Your task to perform on an android device: What's on the menu at Chipotle? Image 0: 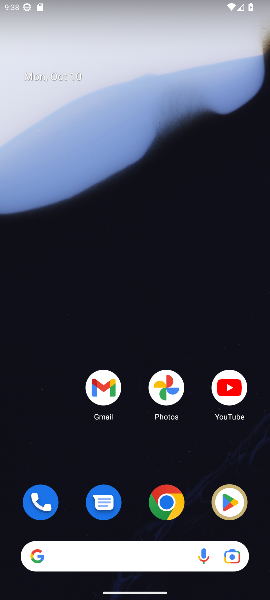
Step 0: click (161, 500)
Your task to perform on an android device: What's on the menu at Chipotle? Image 1: 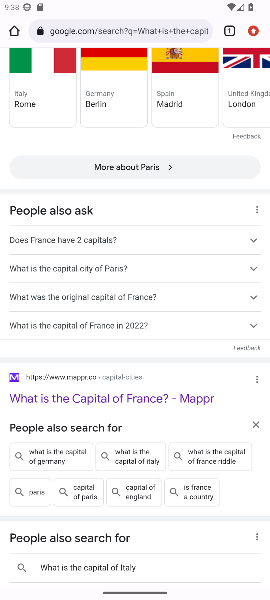
Step 1: click (162, 15)
Your task to perform on an android device: What's on the menu at Chipotle? Image 2: 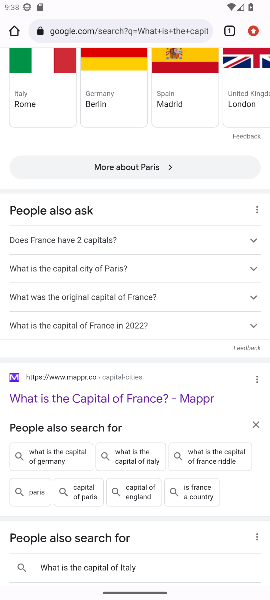
Step 2: click (160, 27)
Your task to perform on an android device: What's on the menu at Chipotle? Image 3: 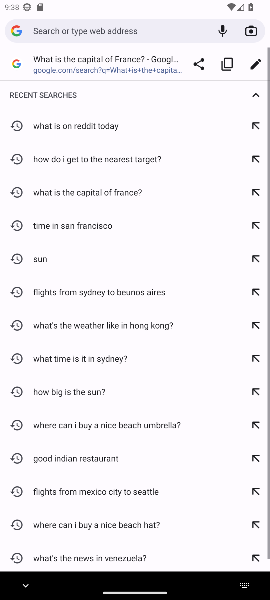
Step 3: click (160, 27)
Your task to perform on an android device: What's on the menu at Chipotle? Image 4: 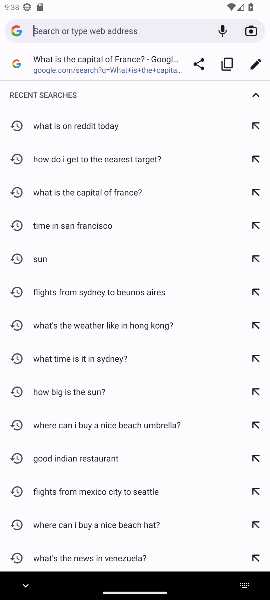
Step 4: type "What's on the menu at Chipotle?"
Your task to perform on an android device: What's on the menu at Chipotle? Image 5: 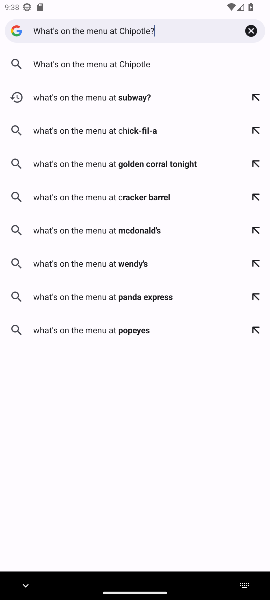
Step 5: type ""
Your task to perform on an android device: What's on the menu at Chipotle? Image 6: 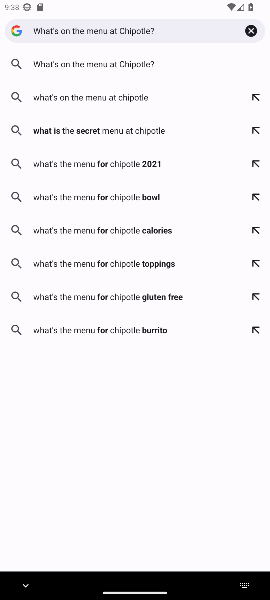
Step 6: click (124, 55)
Your task to perform on an android device: What's on the menu at Chipotle? Image 7: 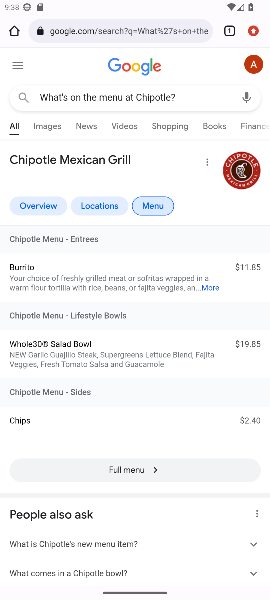
Step 7: drag from (80, 408) to (129, 162)
Your task to perform on an android device: What's on the menu at Chipotle? Image 8: 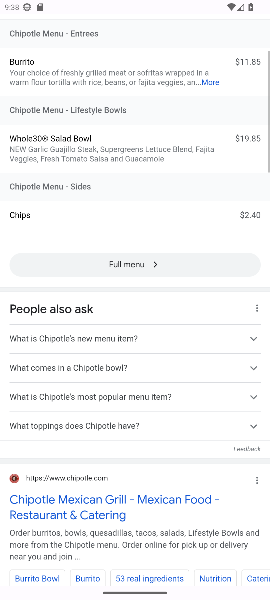
Step 8: drag from (117, 381) to (164, 199)
Your task to perform on an android device: What's on the menu at Chipotle? Image 9: 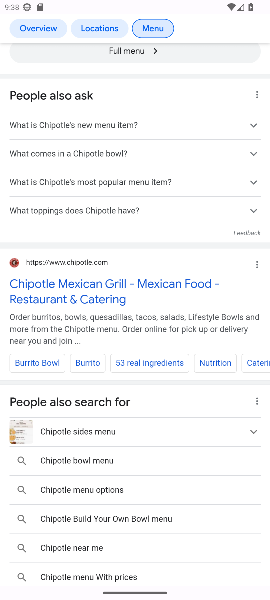
Step 9: drag from (198, 414) to (191, 188)
Your task to perform on an android device: What's on the menu at Chipotle? Image 10: 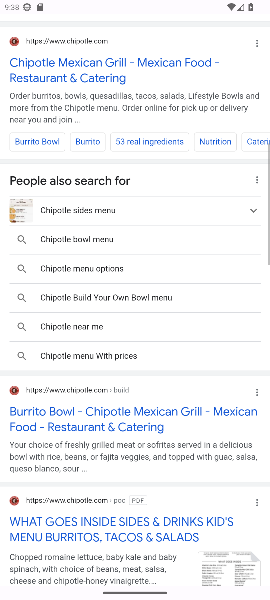
Step 10: drag from (161, 452) to (164, 186)
Your task to perform on an android device: What's on the menu at Chipotle? Image 11: 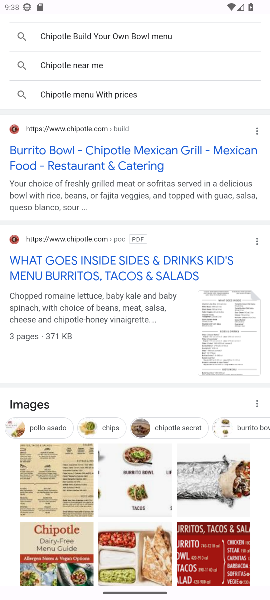
Step 11: drag from (164, 186) to (175, 480)
Your task to perform on an android device: What's on the menu at Chipotle? Image 12: 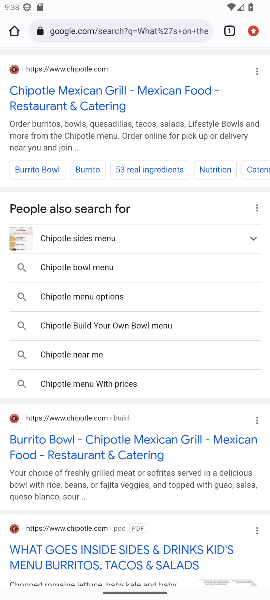
Step 12: drag from (181, 294) to (168, 531)
Your task to perform on an android device: What's on the menu at Chipotle? Image 13: 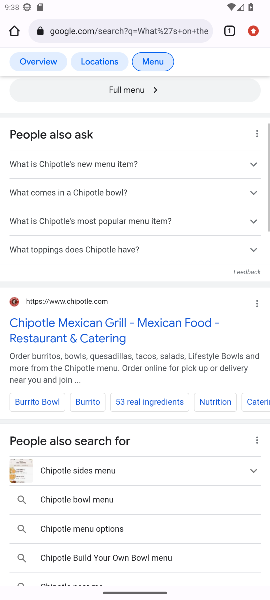
Step 13: drag from (159, 318) to (143, 542)
Your task to perform on an android device: What's on the menu at Chipotle? Image 14: 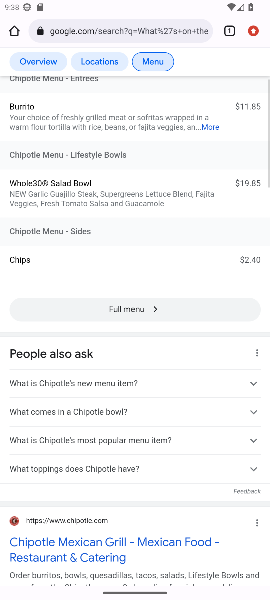
Step 14: drag from (169, 326) to (155, 559)
Your task to perform on an android device: What's on the menu at Chipotle? Image 15: 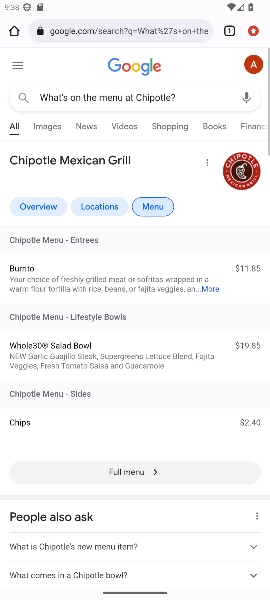
Step 15: drag from (176, 316) to (169, 436)
Your task to perform on an android device: What's on the menu at Chipotle? Image 16: 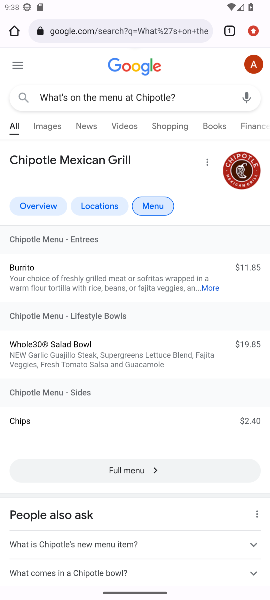
Step 16: click (136, 470)
Your task to perform on an android device: What's on the menu at Chipotle? Image 17: 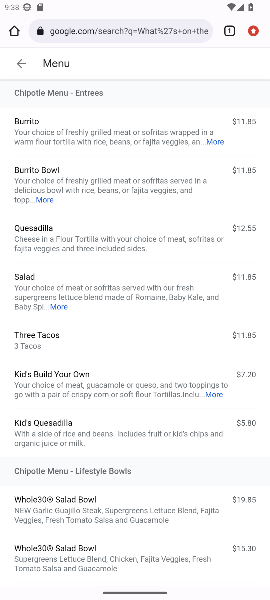
Step 17: drag from (131, 491) to (124, 197)
Your task to perform on an android device: What's on the menu at Chipotle? Image 18: 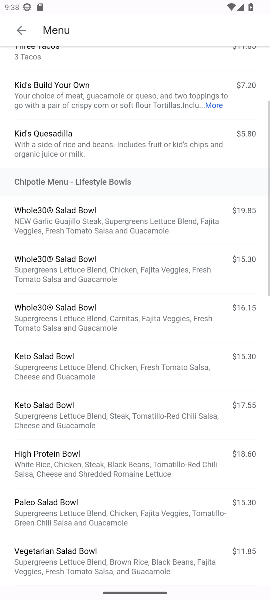
Step 18: drag from (84, 441) to (101, 176)
Your task to perform on an android device: What's on the menu at Chipotle? Image 19: 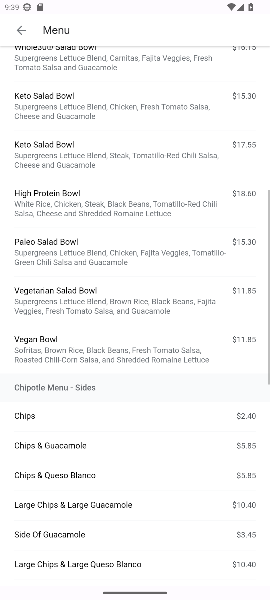
Step 19: click (108, 196)
Your task to perform on an android device: What's on the menu at Chipotle? Image 20: 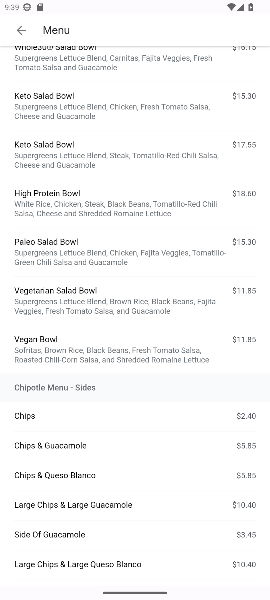
Step 20: drag from (126, 448) to (148, 218)
Your task to perform on an android device: What's on the menu at Chipotle? Image 21: 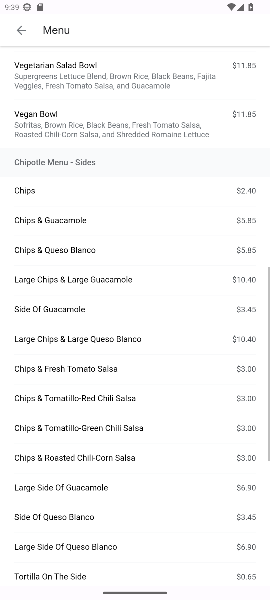
Step 21: click (153, 258)
Your task to perform on an android device: What's on the menu at Chipotle? Image 22: 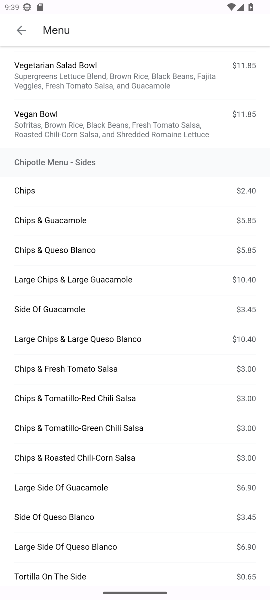
Step 22: drag from (166, 458) to (174, 185)
Your task to perform on an android device: What's on the menu at Chipotle? Image 23: 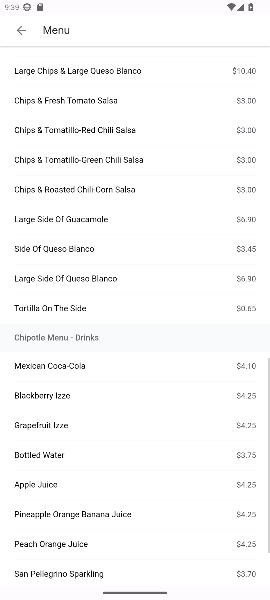
Step 23: drag from (170, 344) to (169, 180)
Your task to perform on an android device: What's on the menu at Chipotle? Image 24: 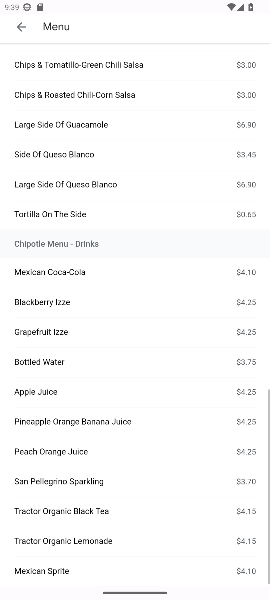
Step 24: drag from (135, 438) to (174, 226)
Your task to perform on an android device: What's on the menu at Chipotle? Image 25: 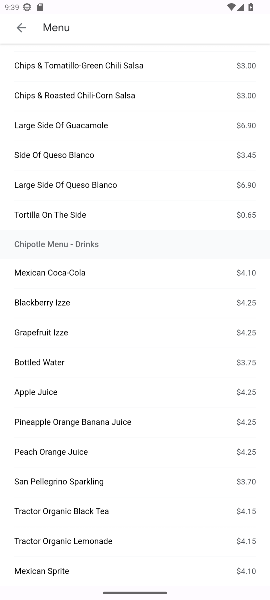
Step 25: drag from (156, 427) to (183, 239)
Your task to perform on an android device: What's on the menu at Chipotle? Image 26: 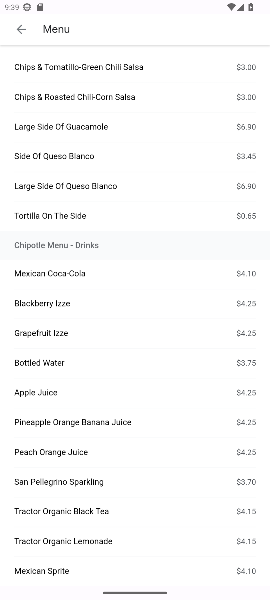
Step 26: drag from (135, 435) to (190, 151)
Your task to perform on an android device: What's on the menu at Chipotle? Image 27: 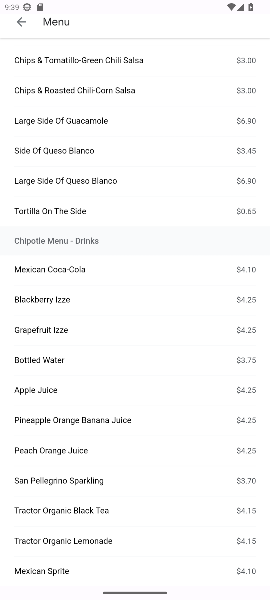
Step 27: drag from (190, 170) to (152, 480)
Your task to perform on an android device: What's on the menu at Chipotle? Image 28: 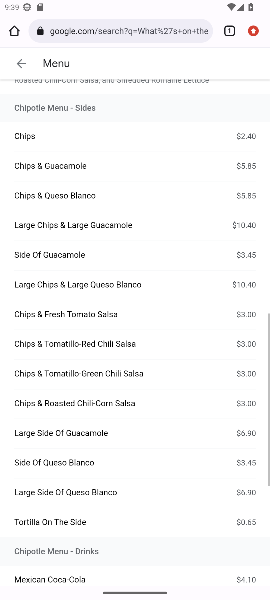
Step 28: drag from (173, 201) to (182, 430)
Your task to perform on an android device: What's on the menu at Chipotle? Image 29: 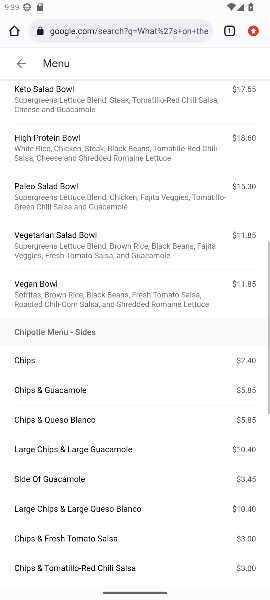
Step 29: drag from (165, 195) to (173, 369)
Your task to perform on an android device: What's on the menu at Chipotle? Image 30: 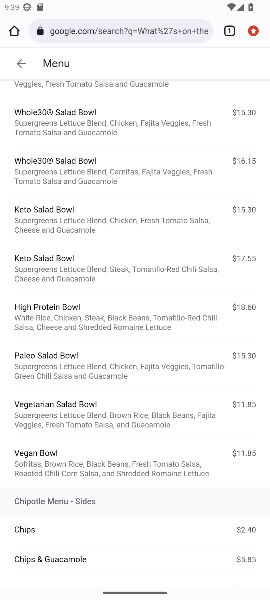
Step 30: drag from (148, 206) to (157, 385)
Your task to perform on an android device: What's on the menu at Chipotle? Image 31: 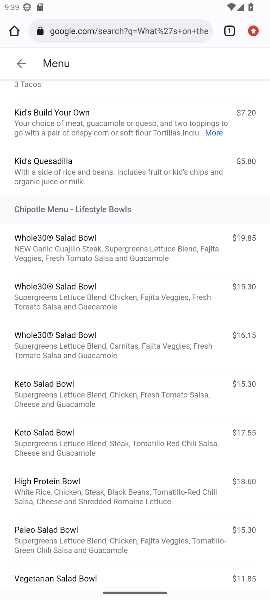
Step 31: drag from (193, 329) to (194, 559)
Your task to perform on an android device: What's on the menu at Chipotle? Image 32: 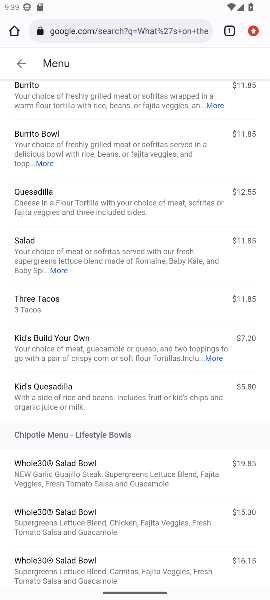
Step 32: press back button
Your task to perform on an android device: What's on the menu at Chipotle? Image 33: 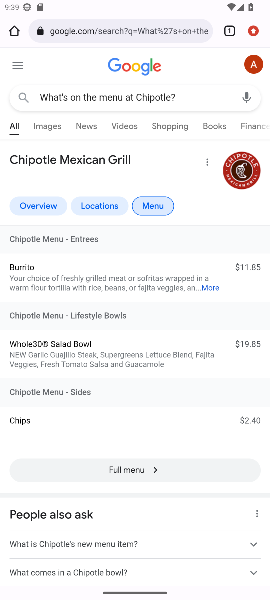
Step 33: drag from (148, 509) to (164, 131)
Your task to perform on an android device: What's on the menu at Chipotle? Image 34: 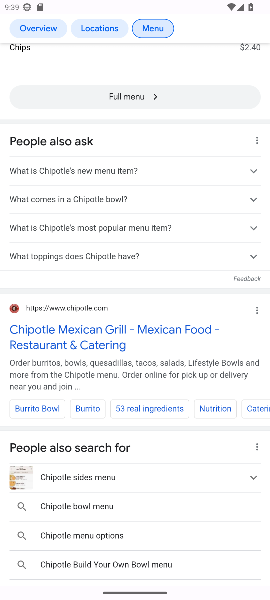
Step 34: click (119, 323)
Your task to perform on an android device: What's on the menu at Chipotle? Image 35: 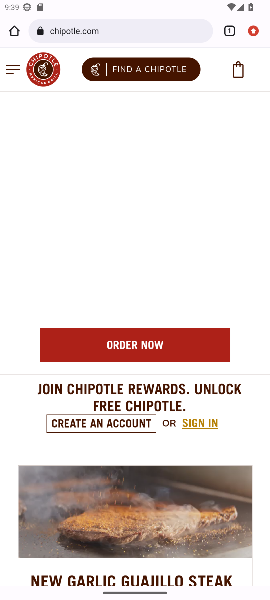
Step 35: drag from (132, 498) to (150, 108)
Your task to perform on an android device: What's on the menu at Chipotle? Image 36: 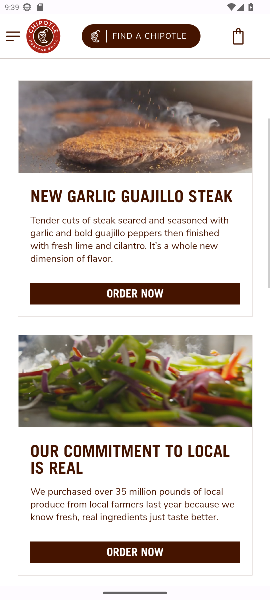
Step 36: drag from (138, 529) to (191, 91)
Your task to perform on an android device: What's on the menu at Chipotle? Image 37: 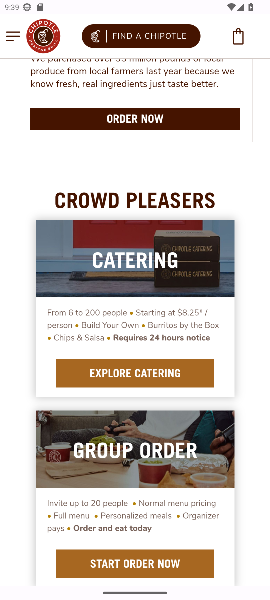
Step 37: drag from (206, 366) to (228, 78)
Your task to perform on an android device: What's on the menu at Chipotle? Image 38: 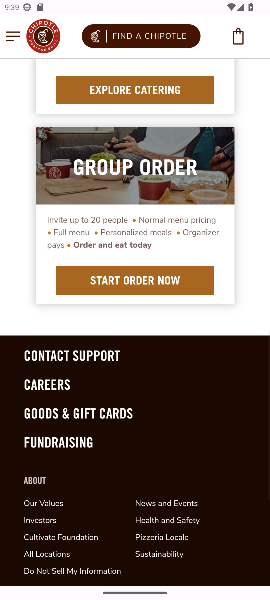
Step 38: drag from (209, 483) to (198, 121)
Your task to perform on an android device: What's on the menu at Chipotle? Image 39: 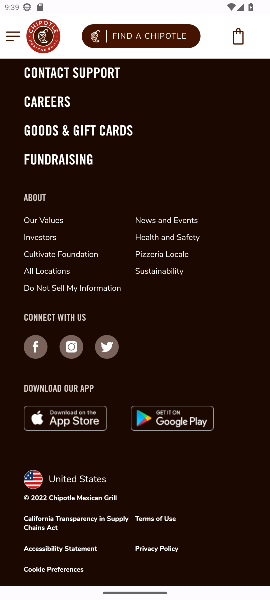
Step 39: press back button
Your task to perform on an android device: What's on the menu at Chipotle? Image 40: 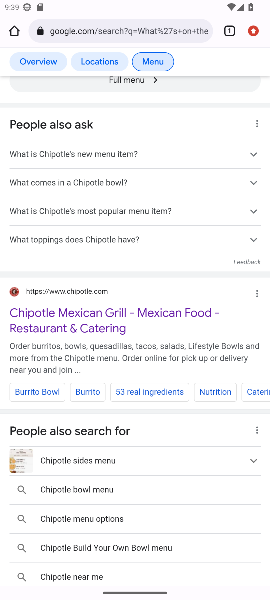
Step 40: drag from (175, 474) to (172, 108)
Your task to perform on an android device: What's on the menu at Chipotle? Image 41: 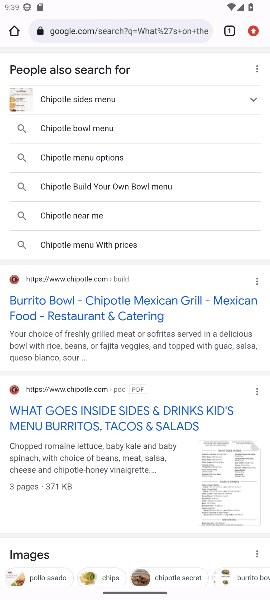
Step 41: click (145, 306)
Your task to perform on an android device: What's on the menu at Chipotle? Image 42: 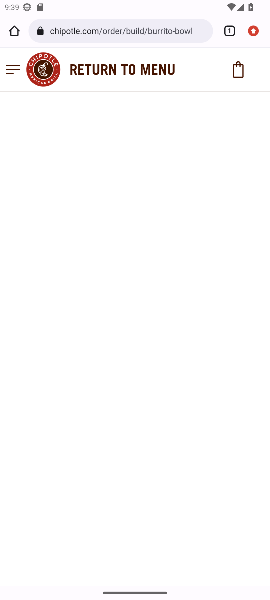
Step 42: drag from (141, 490) to (171, 168)
Your task to perform on an android device: What's on the menu at Chipotle? Image 43: 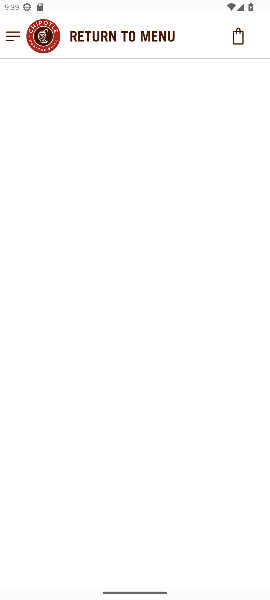
Step 43: drag from (146, 461) to (173, 187)
Your task to perform on an android device: What's on the menu at Chipotle? Image 44: 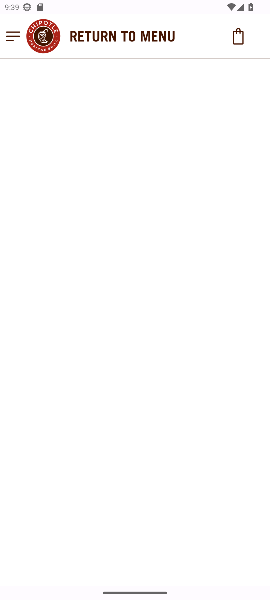
Step 44: drag from (128, 464) to (136, 248)
Your task to perform on an android device: What's on the menu at Chipotle? Image 45: 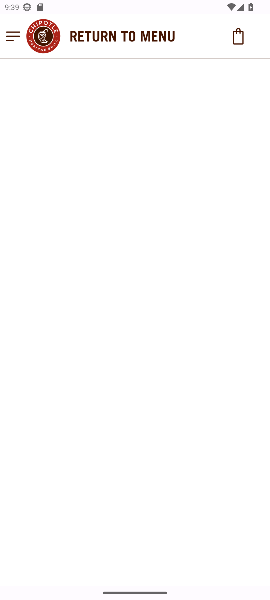
Step 45: drag from (85, 486) to (138, 309)
Your task to perform on an android device: What's on the menu at Chipotle? Image 46: 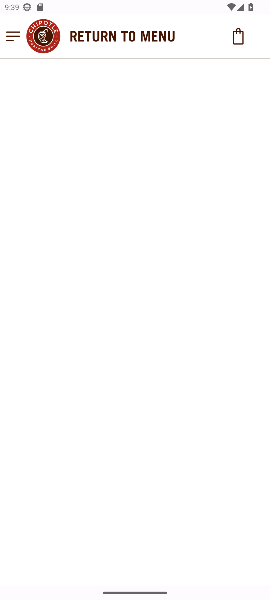
Step 46: drag from (86, 493) to (123, 228)
Your task to perform on an android device: What's on the menu at Chipotle? Image 47: 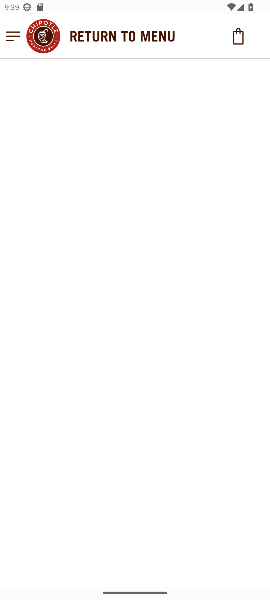
Step 47: drag from (112, 472) to (122, 269)
Your task to perform on an android device: What's on the menu at Chipotle? Image 48: 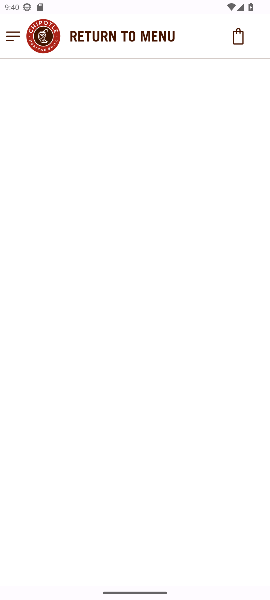
Step 48: drag from (123, 418) to (149, 200)
Your task to perform on an android device: What's on the menu at Chipotle? Image 49: 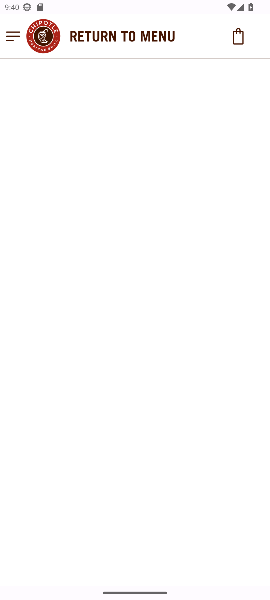
Step 49: click (129, 283)
Your task to perform on an android device: What's on the menu at Chipotle? Image 50: 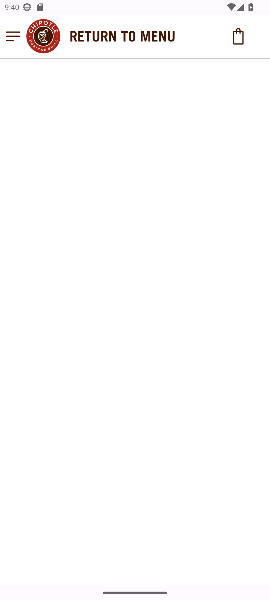
Step 50: press back button
Your task to perform on an android device: What's on the menu at Chipotle? Image 51: 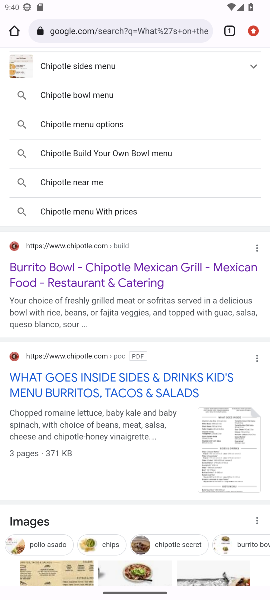
Step 51: drag from (107, 467) to (157, 9)
Your task to perform on an android device: What's on the menu at Chipotle? Image 52: 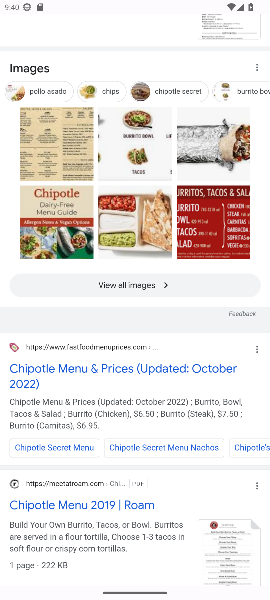
Step 52: click (103, 372)
Your task to perform on an android device: What's on the menu at Chipotle? Image 53: 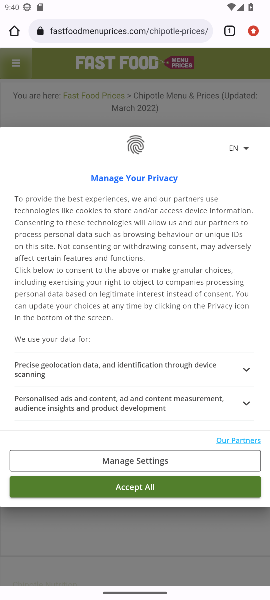
Step 53: drag from (126, 480) to (140, 180)
Your task to perform on an android device: What's on the menu at Chipotle? Image 54: 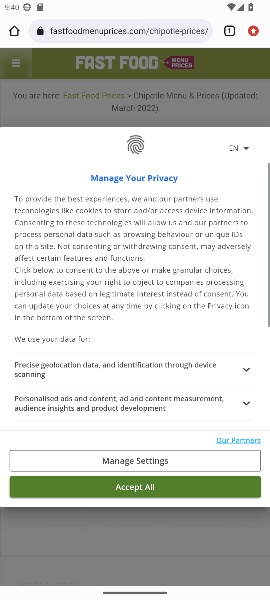
Step 54: click (123, 485)
Your task to perform on an android device: What's on the menu at Chipotle? Image 55: 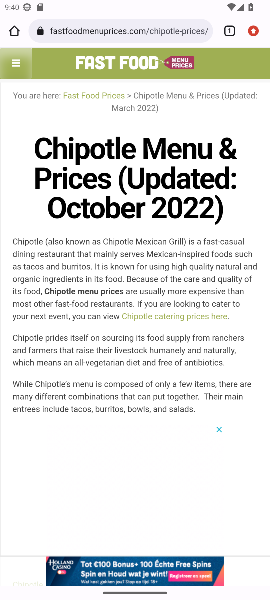
Step 55: drag from (128, 506) to (160, 185)
Your task to perform on an android device: What's on the menu at Chipotle? Image 56: 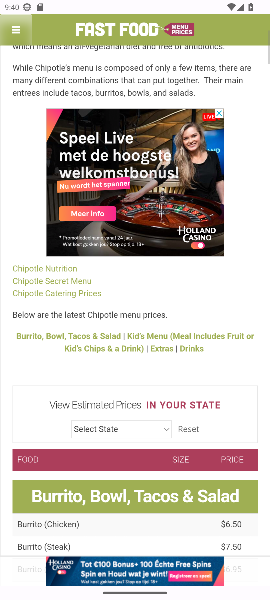
Step 56: drag from (137, 333) to (143, 227)
Your task to perform on an android device: What's on the menu at Chipotle? Image 57: 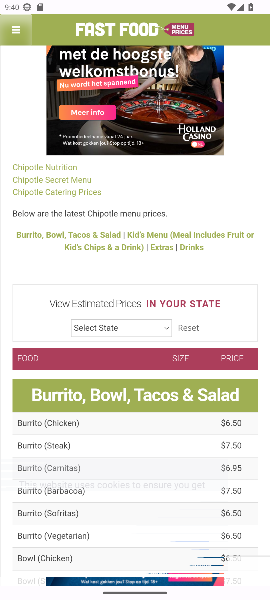
Step 57: drag from (142, 437) to (184, 165)
Your task to perform on an android device: What's on the menu at Chipotle? Image 58: 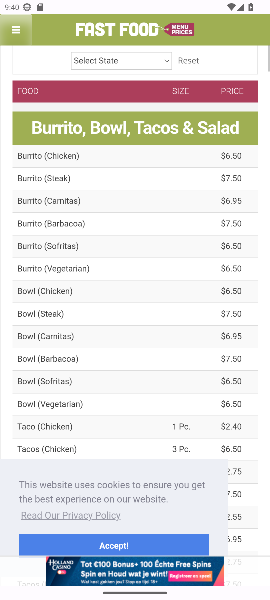
Step 58: drag from (173, 410) to (171, 209)
Your task to perform on an android device: What's on the menu at Chipotle? Image 59: 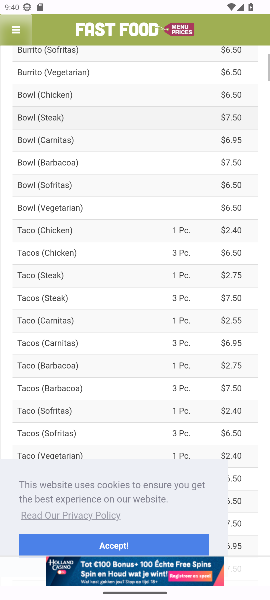
Step 59: drag from (136, 436) to (132, 218)
Your task to perform on an android device: What's on the menu at Chipotle? Image 60: 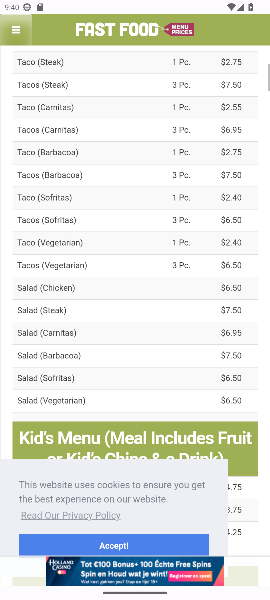
Step 60: drag from (110, 428) to (121, 242)
Your task to perform on an android device: What's on the menu at Chipotle? Image 61: 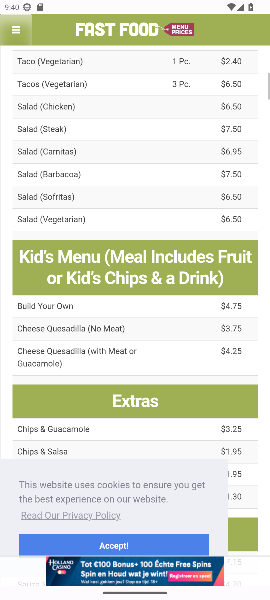
Step 61: drag from (109, 446) to (106, 279)
Your task to perform on an android device: What's on the menu at Chipotle? Image 62: 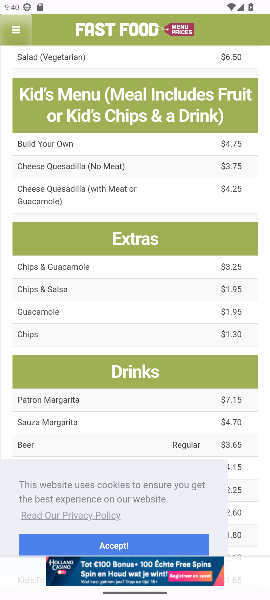
Step 62: drag from (114, 423) to (121, 218)
Your task to perform on an android device: What's on the menu at Chipotle? Image 63: 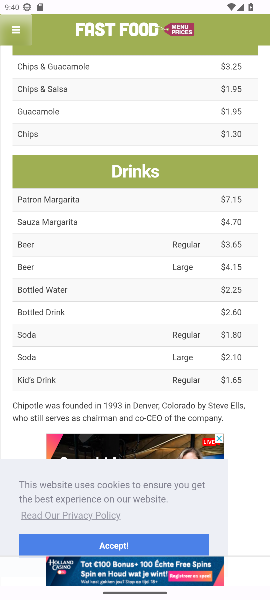
Step 63: drag from (97, 419) to (118, 194)
Your task to perform on an android device: What's on the menu at Chipotle? Image 64: 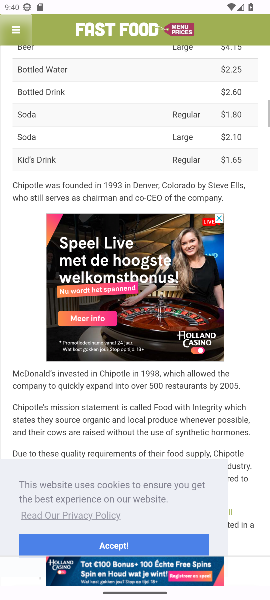
Step 64: drag from (121, 196) to (124, 167)
Your task to perform on an android device: What's on the menu at Chipotle? Image 65: 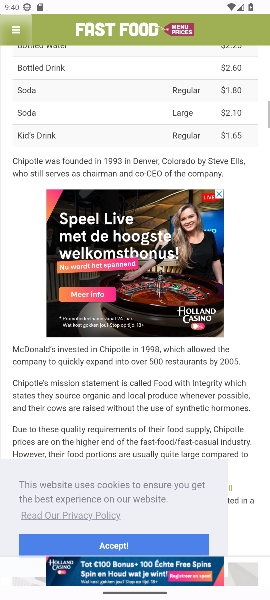
Step 65: drag from (106, 355) to (104, 180)
Your task to perform on an android device: What's on the menu at Chipotle? Image 66: 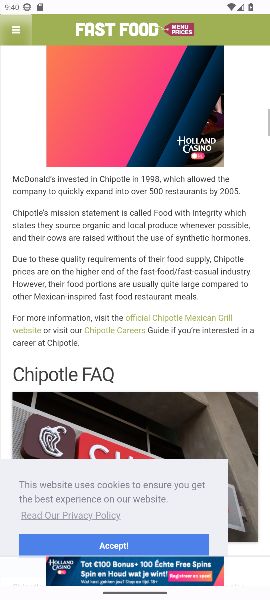
Step 66: drag from (88, 312) to (87, 171)
Your task to perform on an android device: What's on the menu at Chipotle? Image 67: 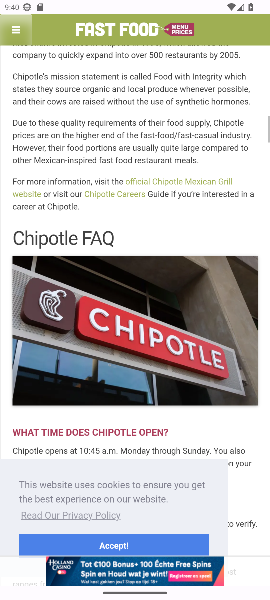
Step 67: drag from (71, 347) to (88, 172)
Your task to perform on an android device: What's on the menu at Chipotle? Image 68: 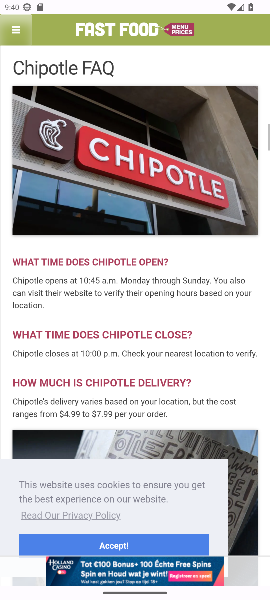
Step 68: drag from (77, 363) to (73, 184)
Your task to perform on an android device: What's on the menu at Chipotle? Image 69: 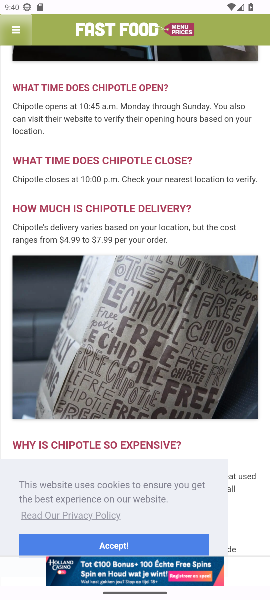
Step 69: click (77, 199)
Your task to perform on an android device: What's on the menu at Chipotle? Image 70: 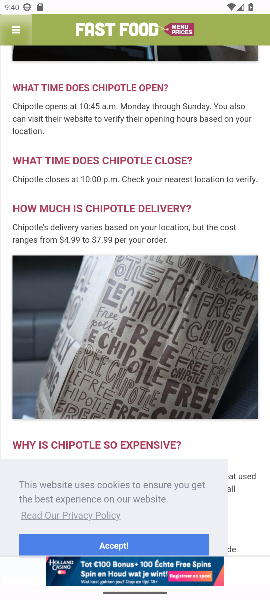
Step 70: drag from (86, 327) to (103, 202)
Your task to perform on an android device: What's on the menu at Chipotle? Image 71: 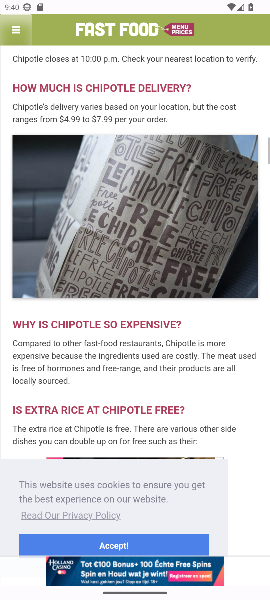
Step 71: drag from (84, 356) to (109, 210)
Your task to perform on an android device: What's on the menu at Chipotle? Image 72: 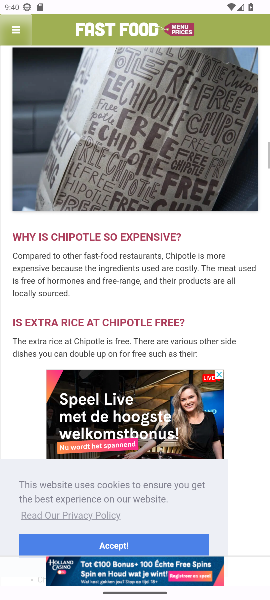
Step 72: click (122, 174)
Your task to perform on an android device: What's on the menu at Chipotle? Image 73: 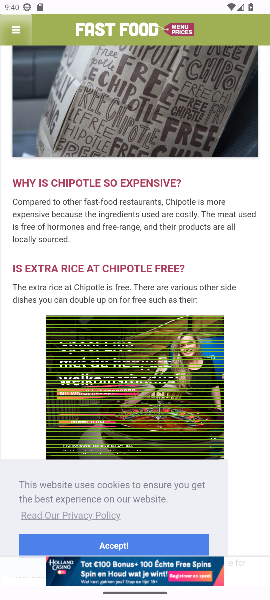
Step 73: drag from (120, 257) to (131, 179)
Your task to perform on an android device: What's on the menu at Chipotle? Image 74: 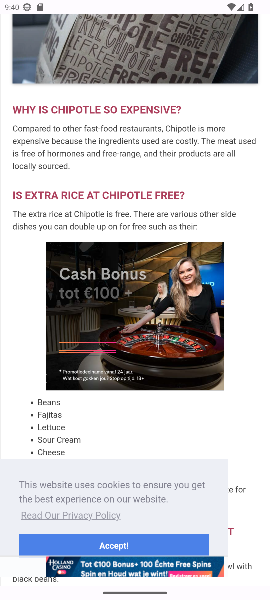
Step 74: drag from (107, 354) to (139, 223)
Your task to perform on an android device: What's on the menu at Chipotle? Image 75: 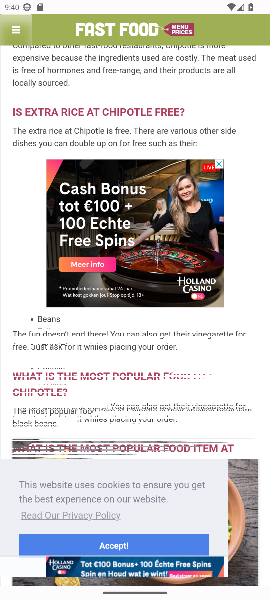
Step 75: drag from (146, 359) to (143, 250)
Your task to perform on an android device: What's on the menu at Chipotle? Image 76: 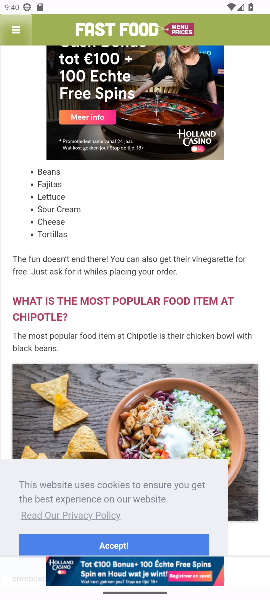
Step 76: drag from (155, 348) to (179, 188)
Your task to perform on an android device: What's on the menu at Chipotle? Image 77: 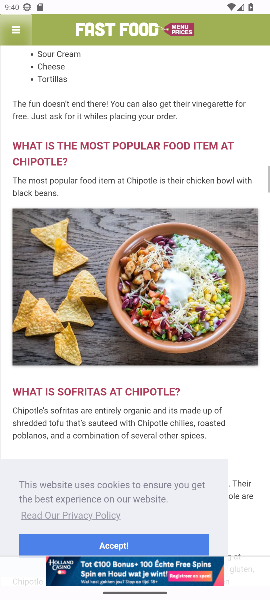
Step 77: drag from (184, 347) to (191, 181)
Your task to perform on an android device: What's on the menu at Chipotle? Image 78: 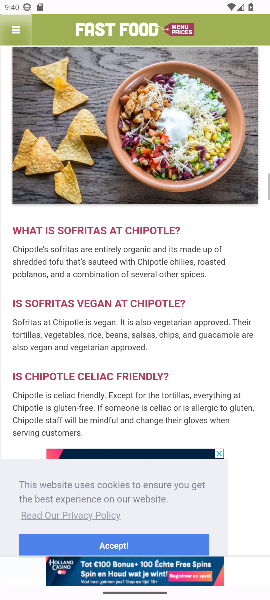
Step 78: drag from (162, 306) to (162, 204)
Your task to perform on an android device: What's on the menu at Chipotle? Image 79: 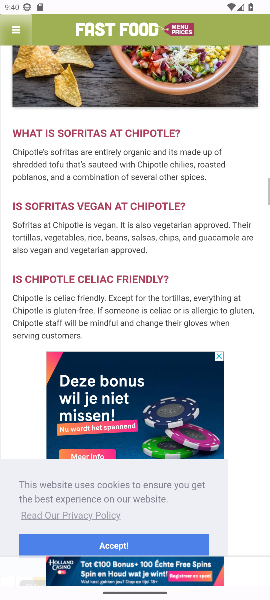
Step 79: drag from (148, 367) to (151, 215)
Your task to perform on an android device: What's on the menu at Chipotle? Image 80: 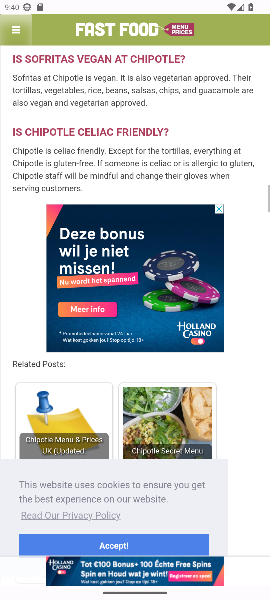
Step 80: drag from (155, 298) to (167, 200)
Your task to perform on an android device: What's on the menu at Chipotle? Image 81: 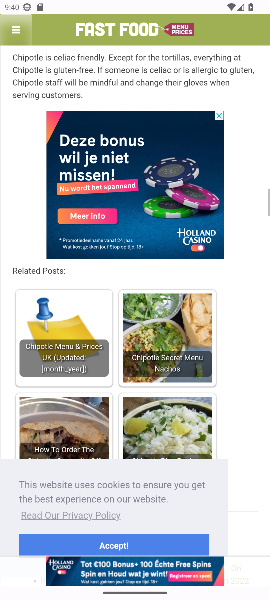
Step 81: drag from (168, 366) to (176, 243)
Your task to perform on an android device: What's on the menu at Chipotle? Image 82: 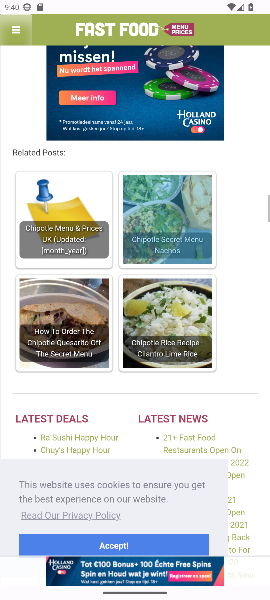
Step 82: drag from (192, 386) to (189, 225)
Your task to perform on an android device: What's on the menu at Chipotle? Image 83: 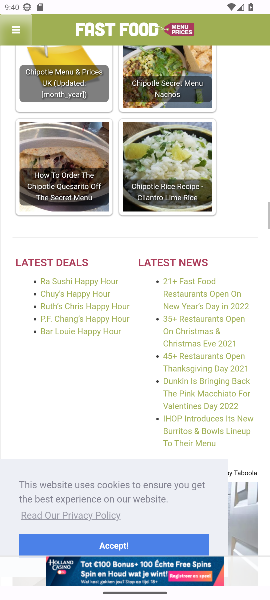
Step 83: drag from (186, 364) to (187, 160)
Your task to perform on an android device: What's on the menu at Chipotle? Image 84: 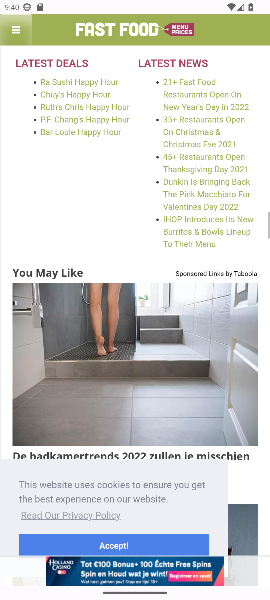
Step 84: drag from (152, 367) to (162, 231)
Your task to perform on an android device: What's on the menu at Chipotle? Image 85: 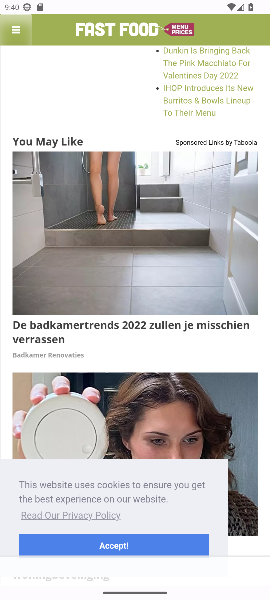
Step 85: drag from (199, 334) to (228, 110)
Your task to perform on an android device: What's on the menu at Chipotle? Image 86: 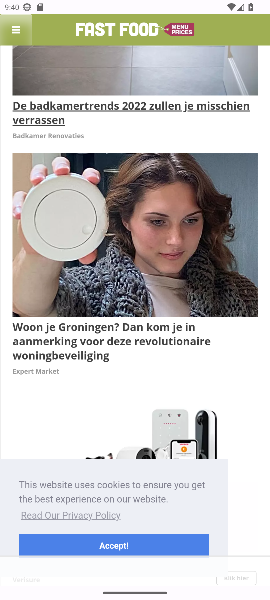
Step 86: press back button
Your task to perform on an android device: What's on the menu at Chipotle? Image 87: 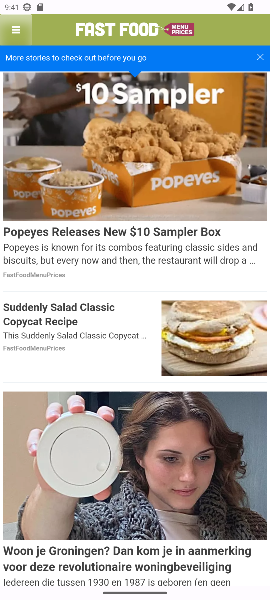
Step 87: press back button
Your task to perform on an android device: What's on the menu at Chipotle? Image 88: 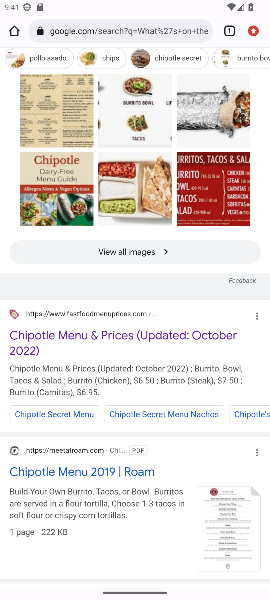
Step 88: drag from (106, 529) to (159, 64)
Your task to perform on an android device: What's on the menu at Chipotle? Image 89: 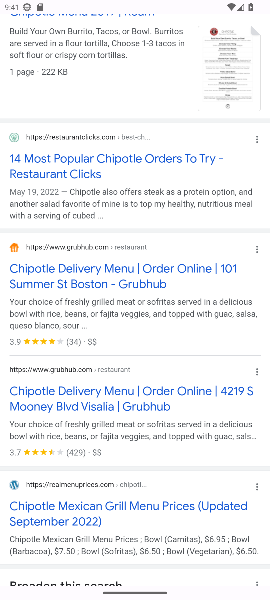
Step 89: click (89, 153)
Your task to perform on an android device: What's on the menu at Chipotle? Image 90: 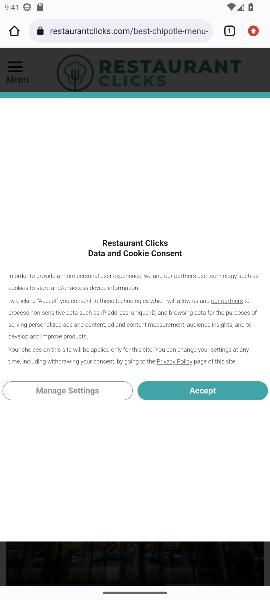
Step 90: click (189, 388)
Your task to perform on an android device: What's on the menu at Chipotle? Image 91: 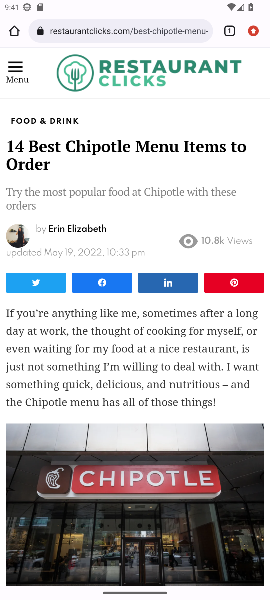
Step 91: drag from (191, 457) to (199, 47)
Your task to perform on an android device: What's on the menu at Chipotle? Image 92: 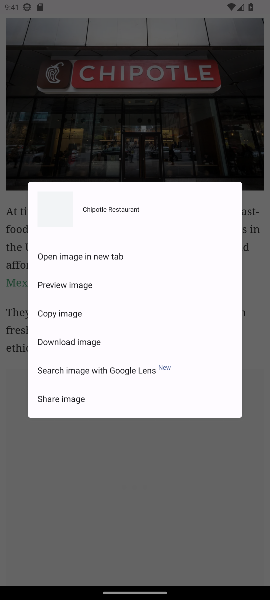
Step 92: drag from (192, 406) to (205, 102)
Your task to perform on an android device: What's on the menu at Chipotle? Image 93: 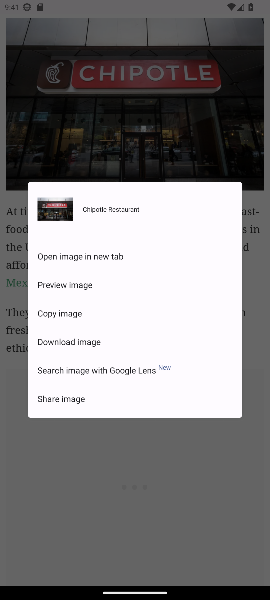
Step 93: click (161, 503)
Your task to perform on an android device: What's on the menu at Chipotle? Image 94: 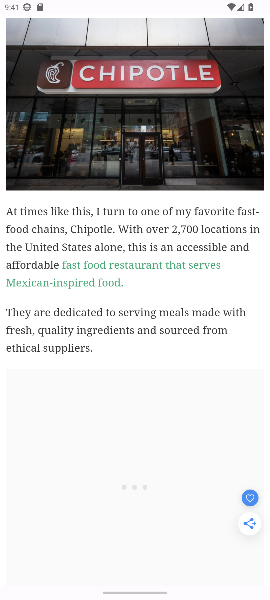
Step 94: drag from (161, 503) to (168, 42)
Your task to perform on an android device: What's on the menu at Chipotle? Image 95: 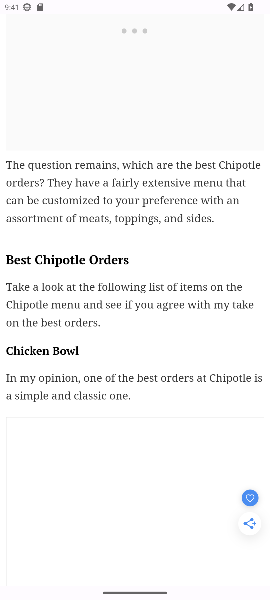
Step 95: drag from (131, 530) to (175, 95)
Your task to perform on an android device: What's on the menu at Chipotle? Image 96: 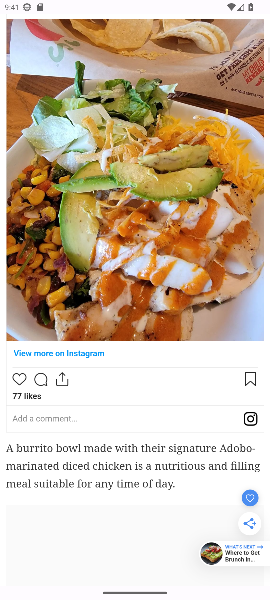
Step 96: drag from (153, 500) to (178, 104)
Your task to perform on an android device: What's on the menu at Chipotle? Image 97: 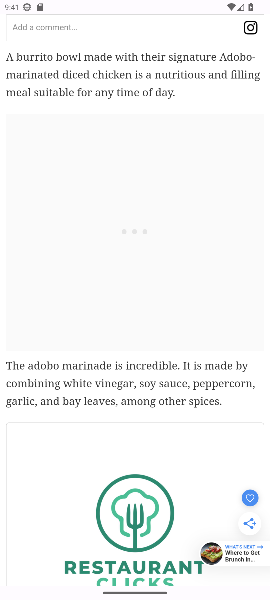
Step 97: drag from (168, 479) to (171, 160)
Your task to perform on an android device: What's on the menu at Chipotle? Image 98: 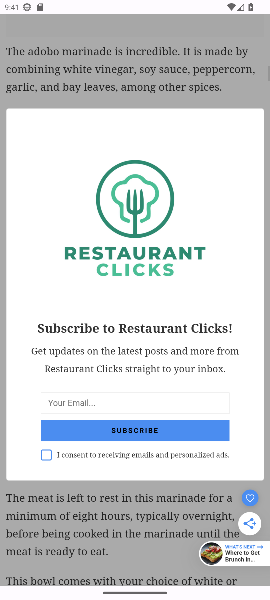
Step 98: click (143, 98)
Your task to perform on an android device: What's on the menu at Chipotle? Image 99: 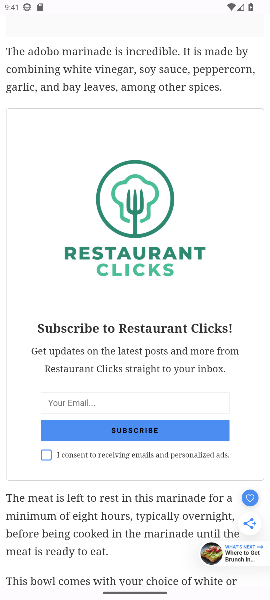
Step 99: task complete